Your task to perform on an android device: Show me recent news Image 0: 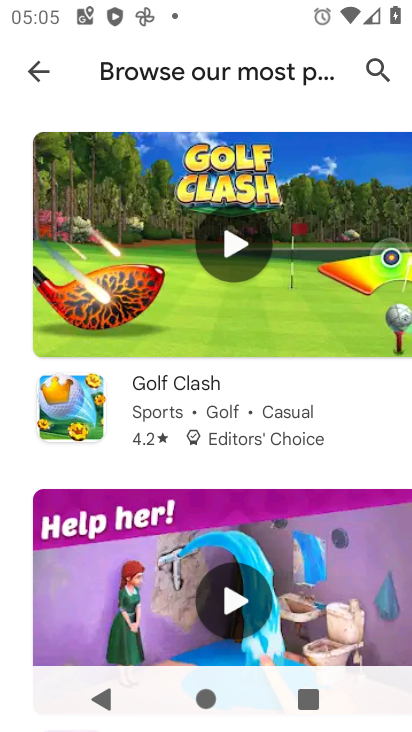
Step 0: press home button
Your task to perform on an android device: Show me recent news Image 1: 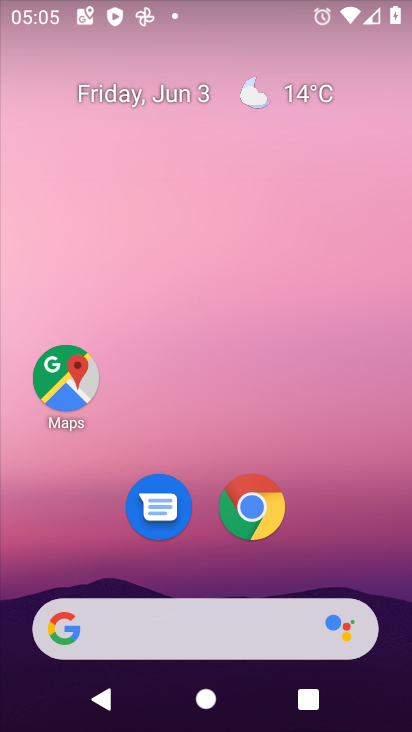
Step 1: click (190, 628)
Your task to perform on an android device: Show me recent news Image 2: 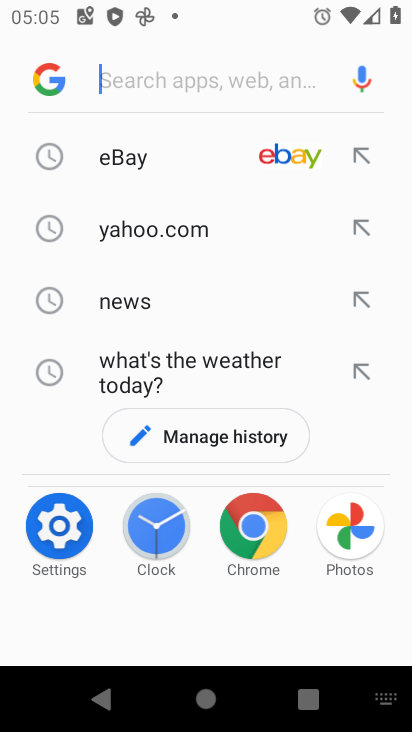
Step 2: type "recent news"
Your task to perform on an android device: Show me recent news Image 3: 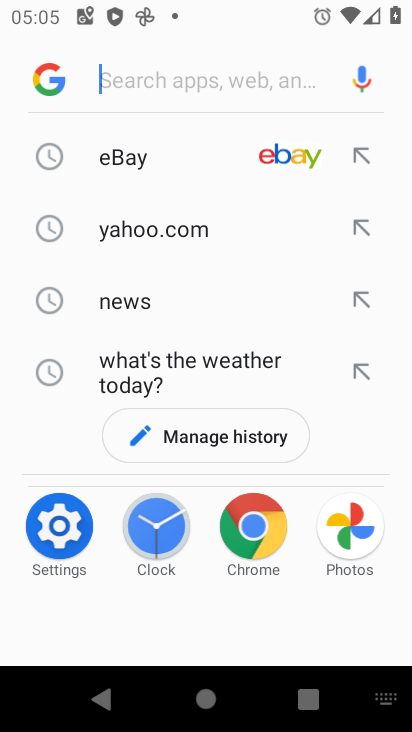
Step 3: click (216, 83)
Your task to perform on an android device: Show me recent news Image 4: 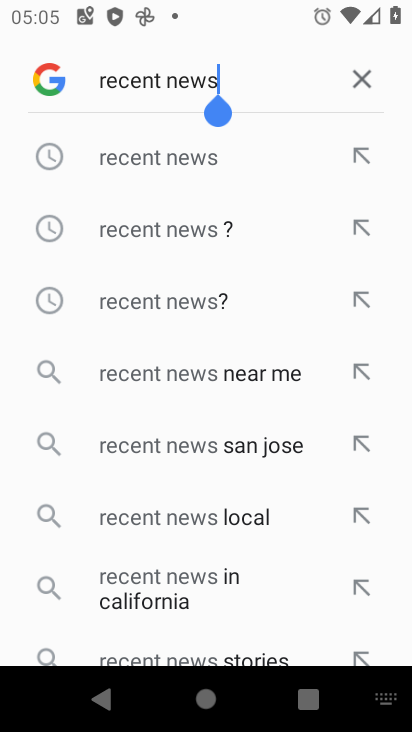
Step 4: click (190, 159)
Your task to perform on an android device: Show me recent news Image 5: 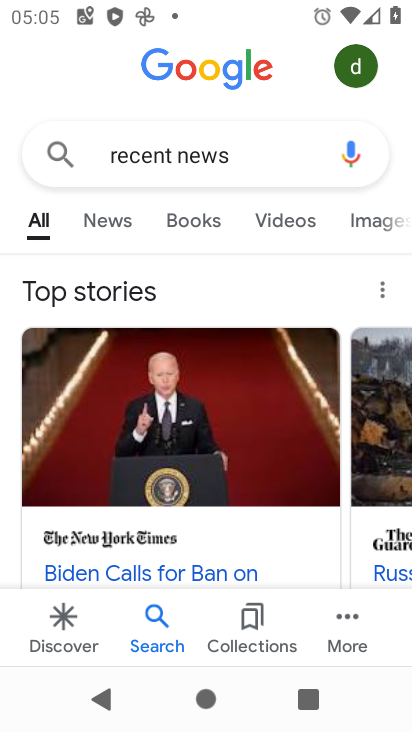
Step 5: task complete